Your task to perform on an android device: Open calendar and show me the fourth week of next month Image 0: 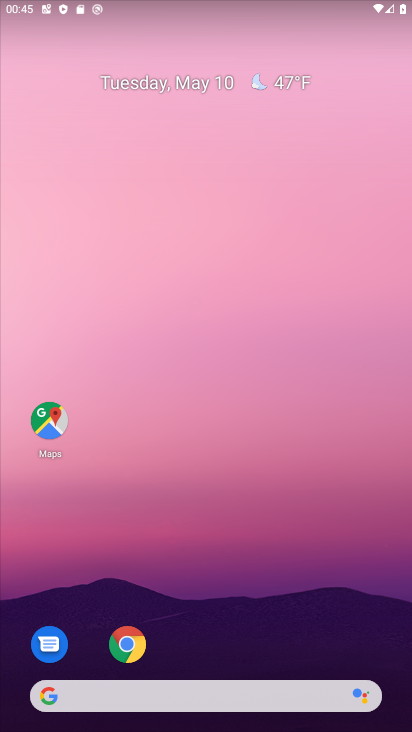
Step 0: drag from (191, 568) to (275, 88)
Your task to perform on an android device: Open calendar and show me the fourth week of next month Image 1: 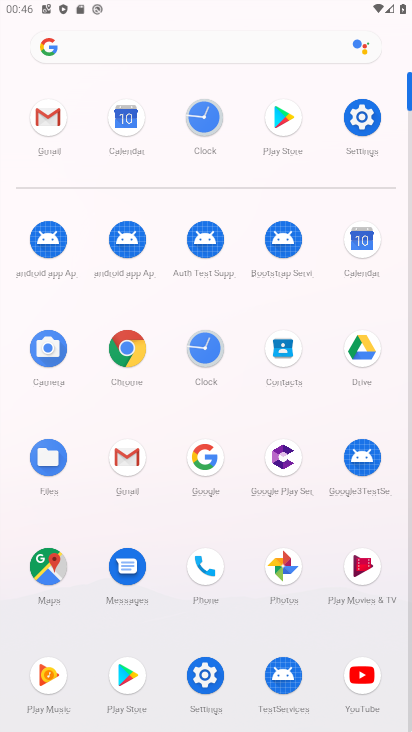
Step 1: click (354, 249)
Your task to perform on an android device: Open calendar and show me the fourth week of next month Image 2: 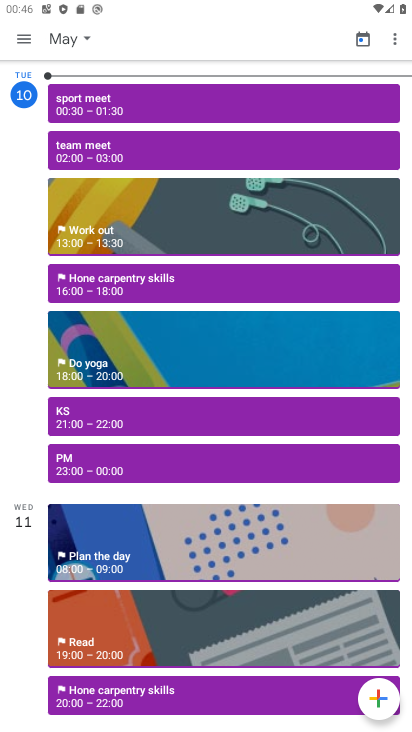
Step 2: click (77, 37)
Your task to perform on an android device: Open calendar and show me the fourth week of next month Image 3: 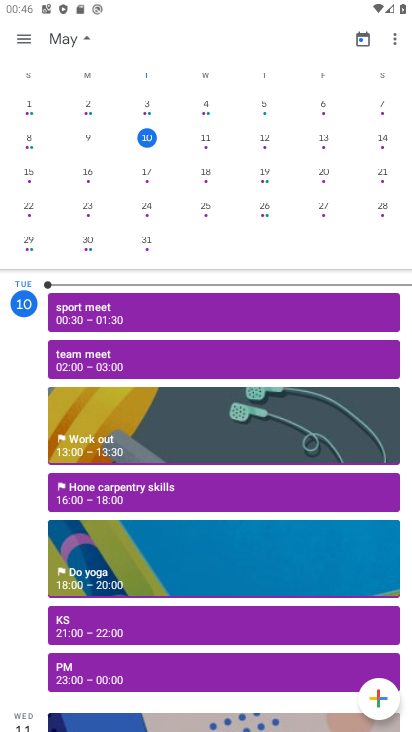
Step 3: drag from (372, 177) to (43, 124)
Your task to perform on an android device: Open calendar and show me the fourth week of next month Image 4: 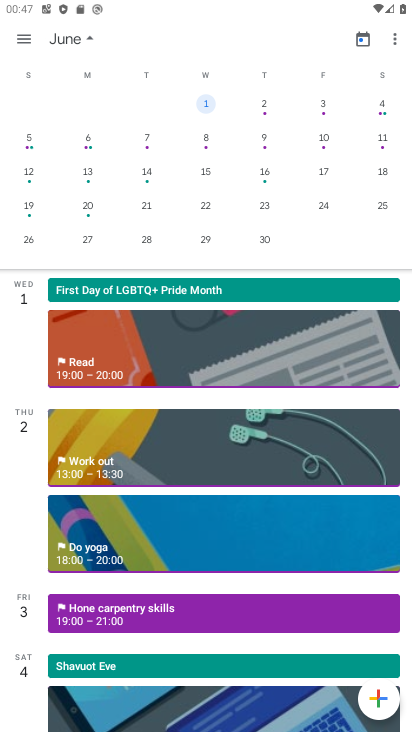
Step 4: click (90, 199)
Your task to perform on an android device: Open calendar and show me the fourth week of next month Image 5: 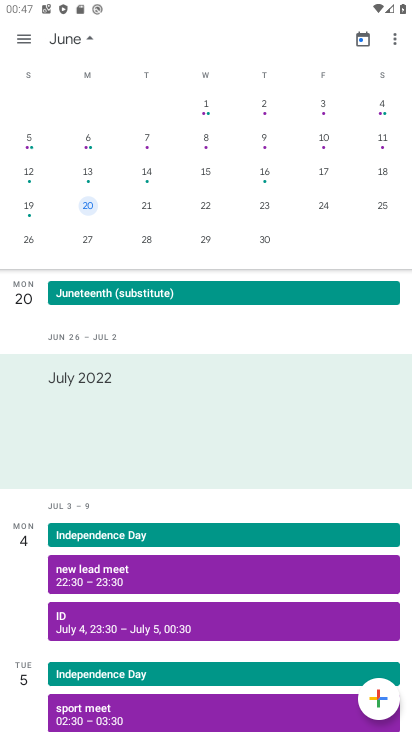
Step 5: task complete